Your task to perform on an android device: turn on translation in the chrome app Image 0: 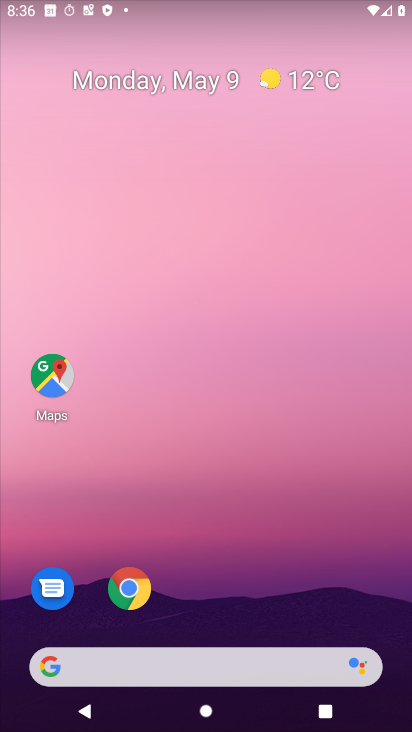
Step 0: drag from (148, 669) to (225, 252)
Your task to perform on an android device: turn on translation in the chrome app Image 1: 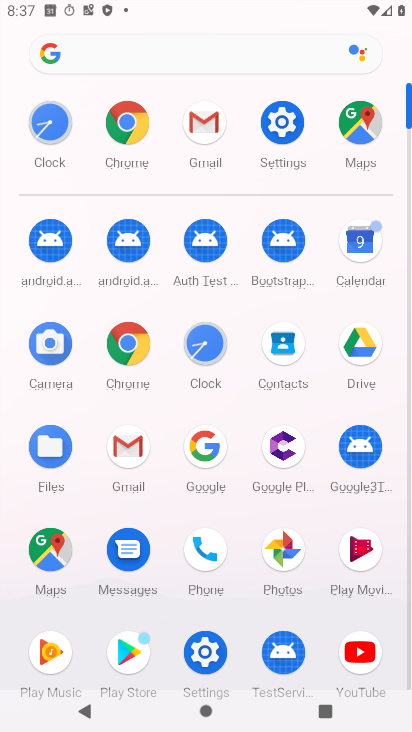
Step 1: click (124, 135)
Your task to perform on an android device: turn on translation in the chrome app Image 2: 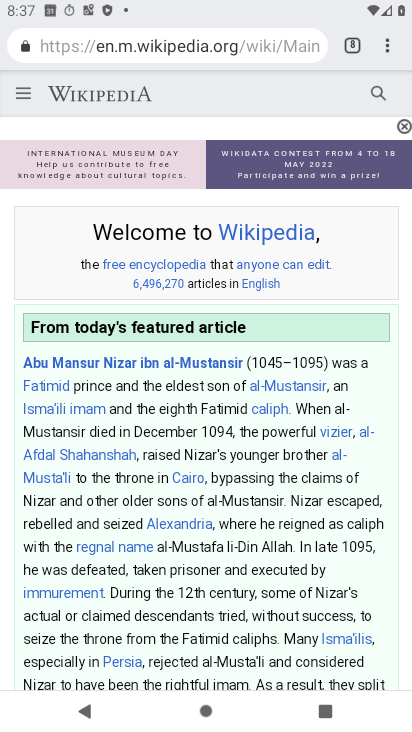
Step 2: drag from (384, 47) to (236, 550)
Your task to perform on an android device: turn on translation in the chrome app Image 3: 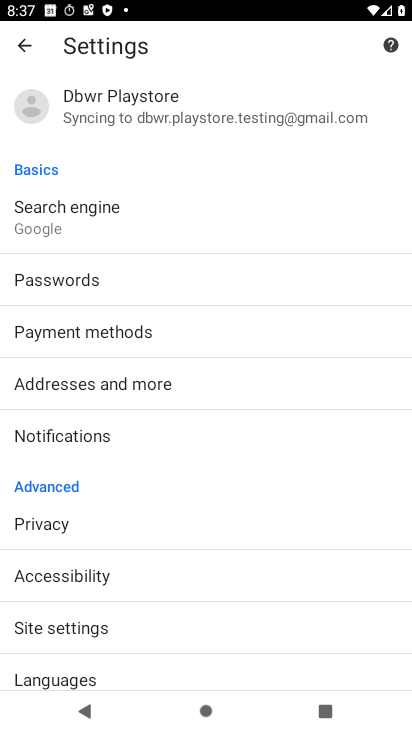
Step 3: click (79, 680)
Your task to perform on an android device: turn on translation in the chrome app Image 4: 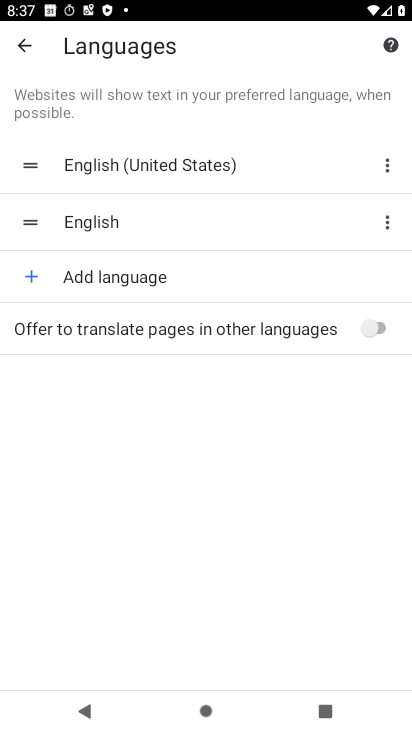
Step 4: click (381, 331)
Your task to perform on an android device: turn on translation in the chrome app Image 5: 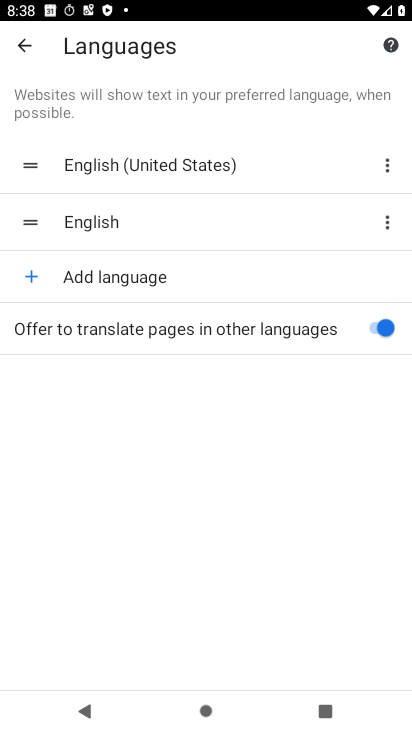
Step 5: task complete